Your task to perform on an android device: check storage Image 0: 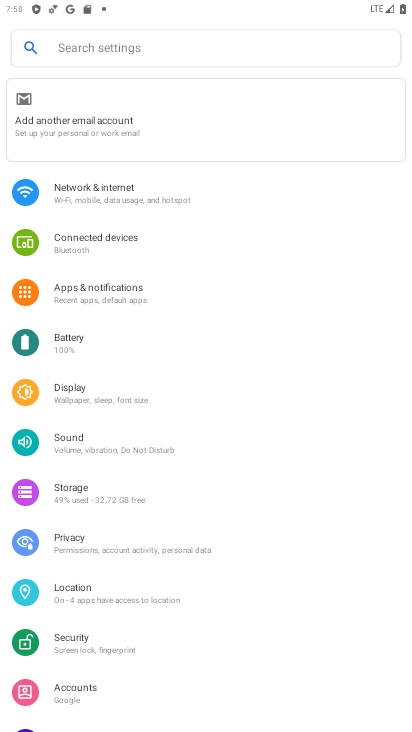
Step 0: click (110, 484)
Your task to perform on an android device: check storage Image 1: 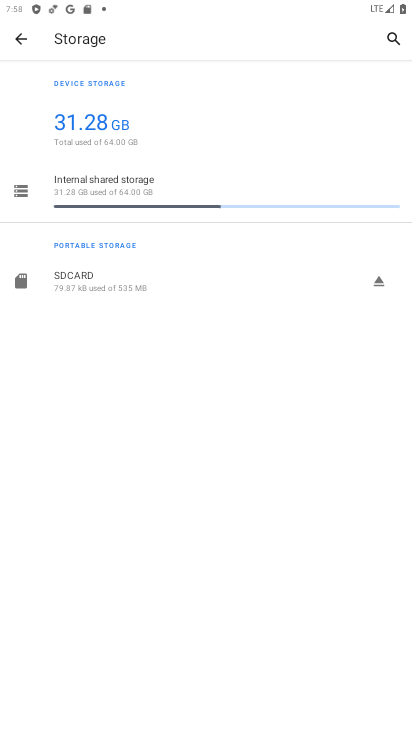
Step 1: task complete